Your task to perform on an android device: Open the phone app and click the voicemail tab. Image 0: 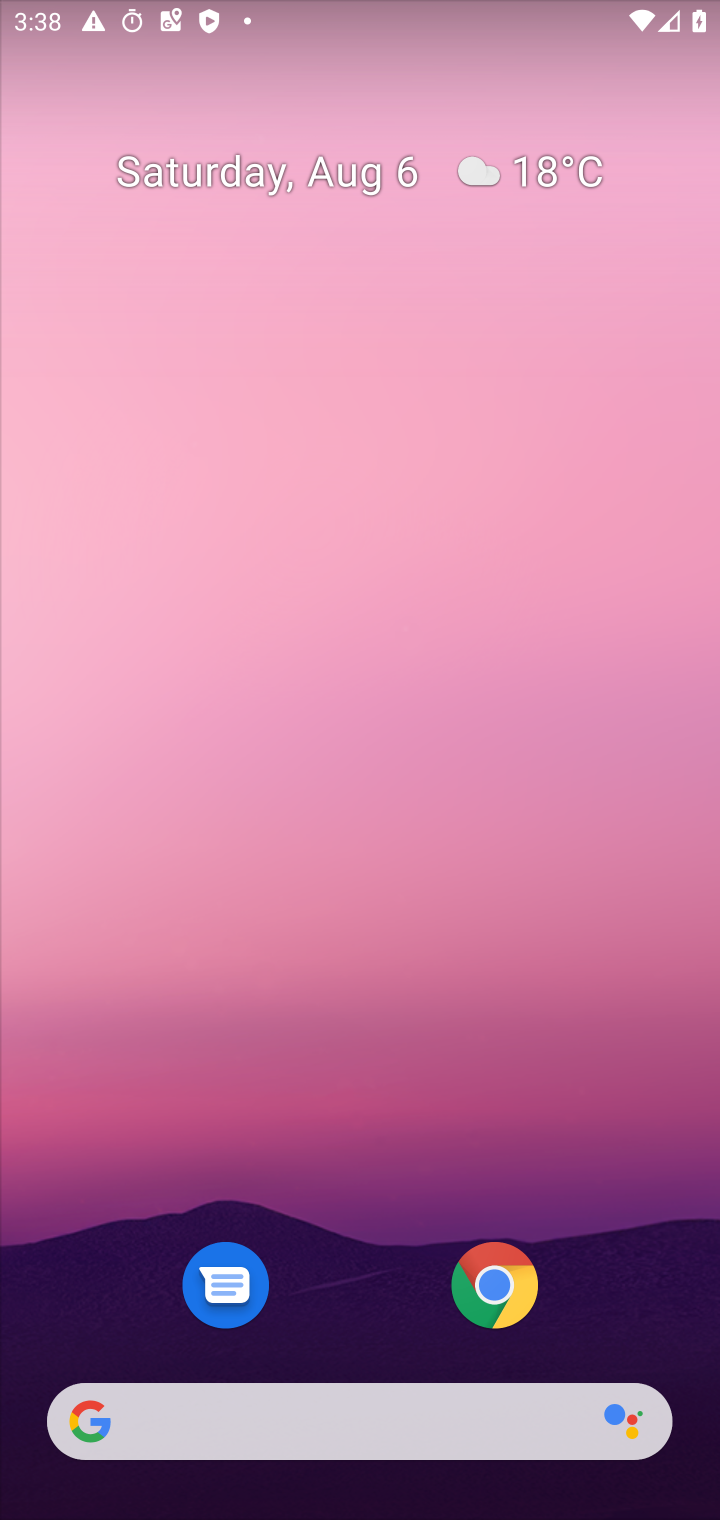
Step 0: drag from (370, 1344) to (500, 221)
Your task to perform on an android device: Open the phone app and click the voicemail tab. Image 1: 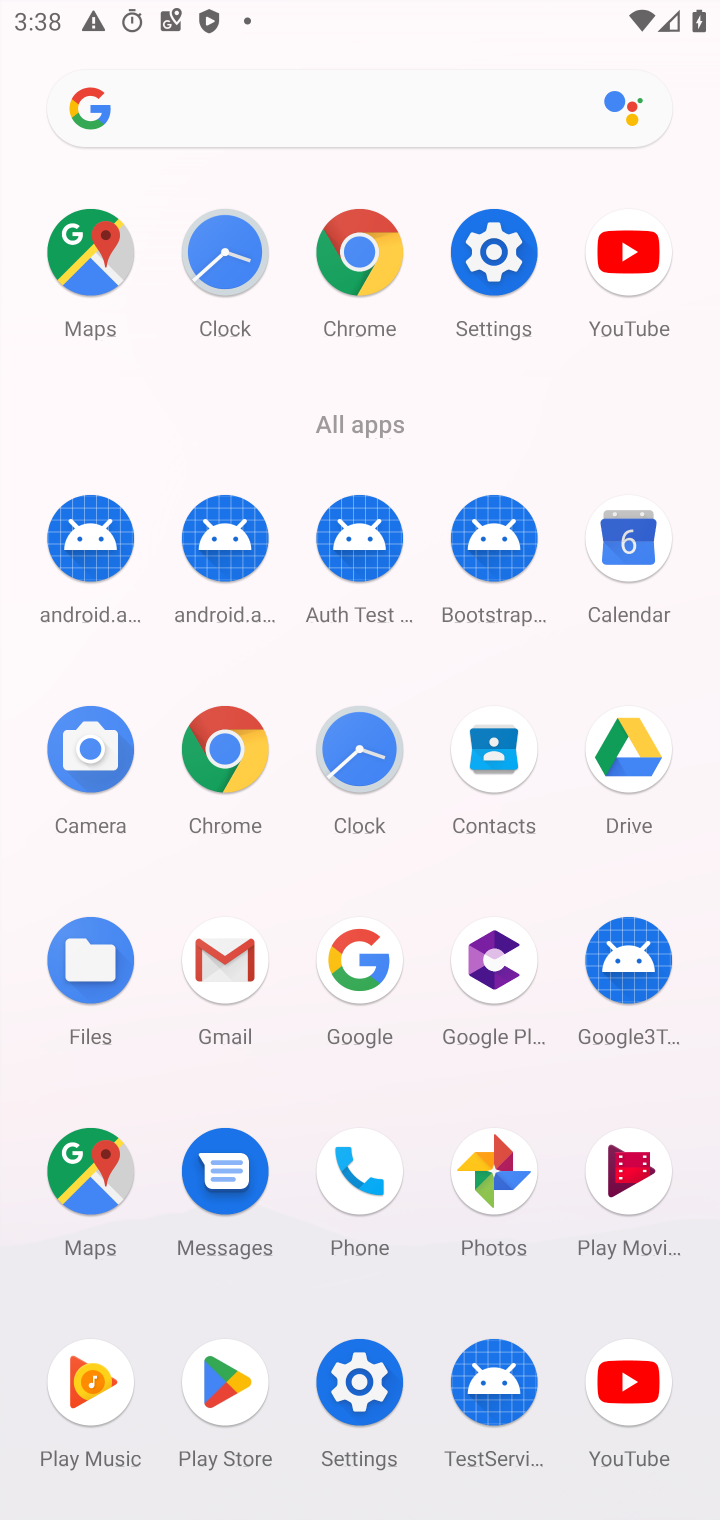
Step 1: click (355, 1159)
Your task to perform on an android device: Open the phone app and click the voicemail tab. Image 2: 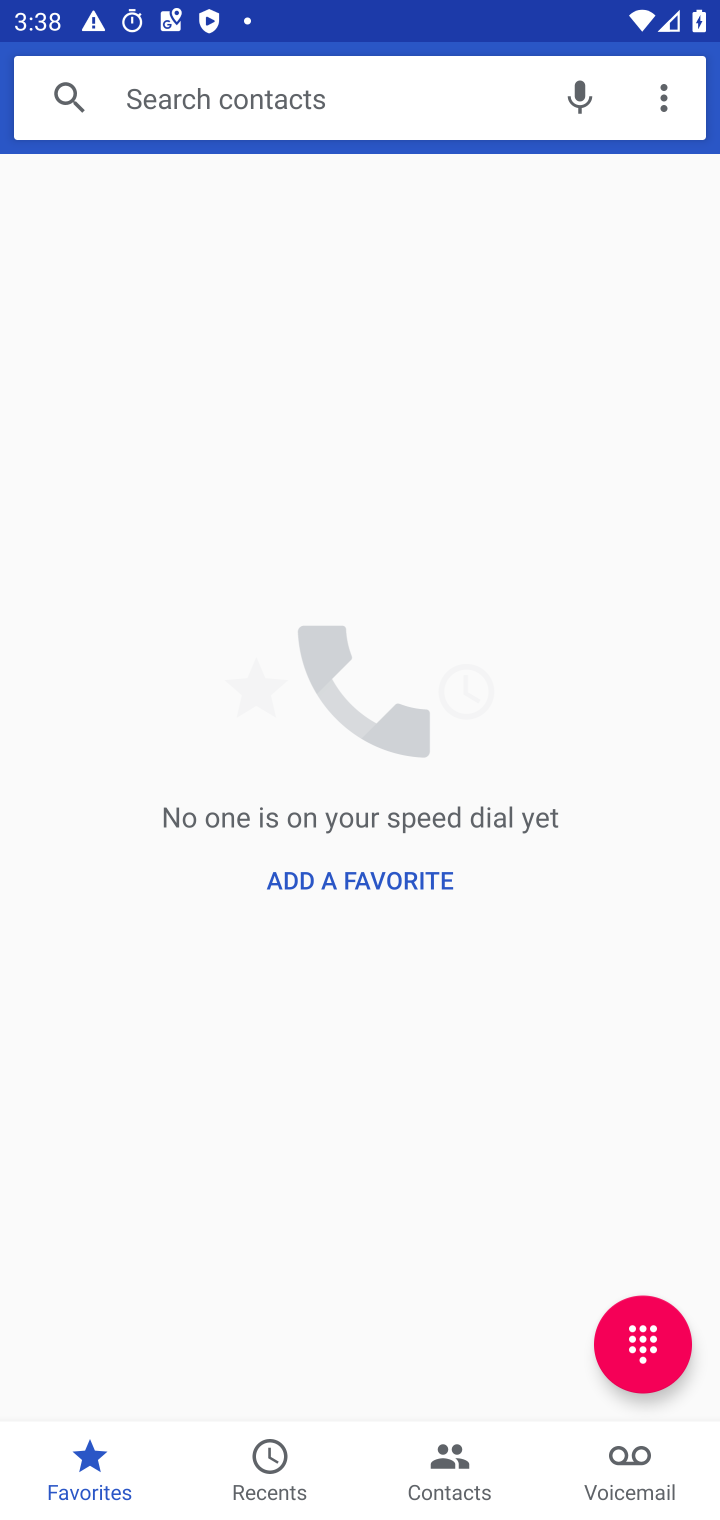
Step 2: click (626, 1447)
Your task to perform on an android device: Open the phone app and click the voicemail tab. Image 3: 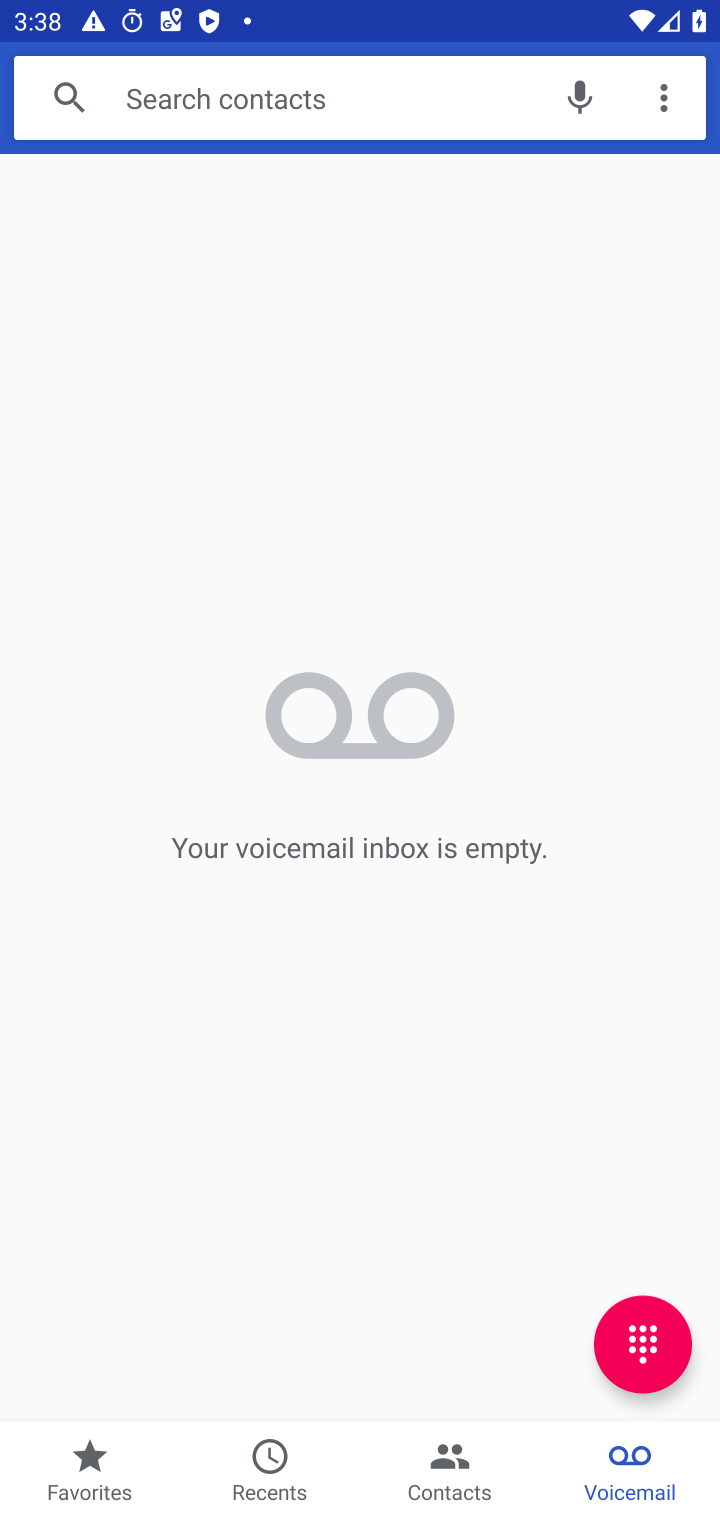
Step 3: task complete